Your task to perform on an android device: Show the shopping cart on ebay. Add "logitech g502" to the cart on ebay Image 0: 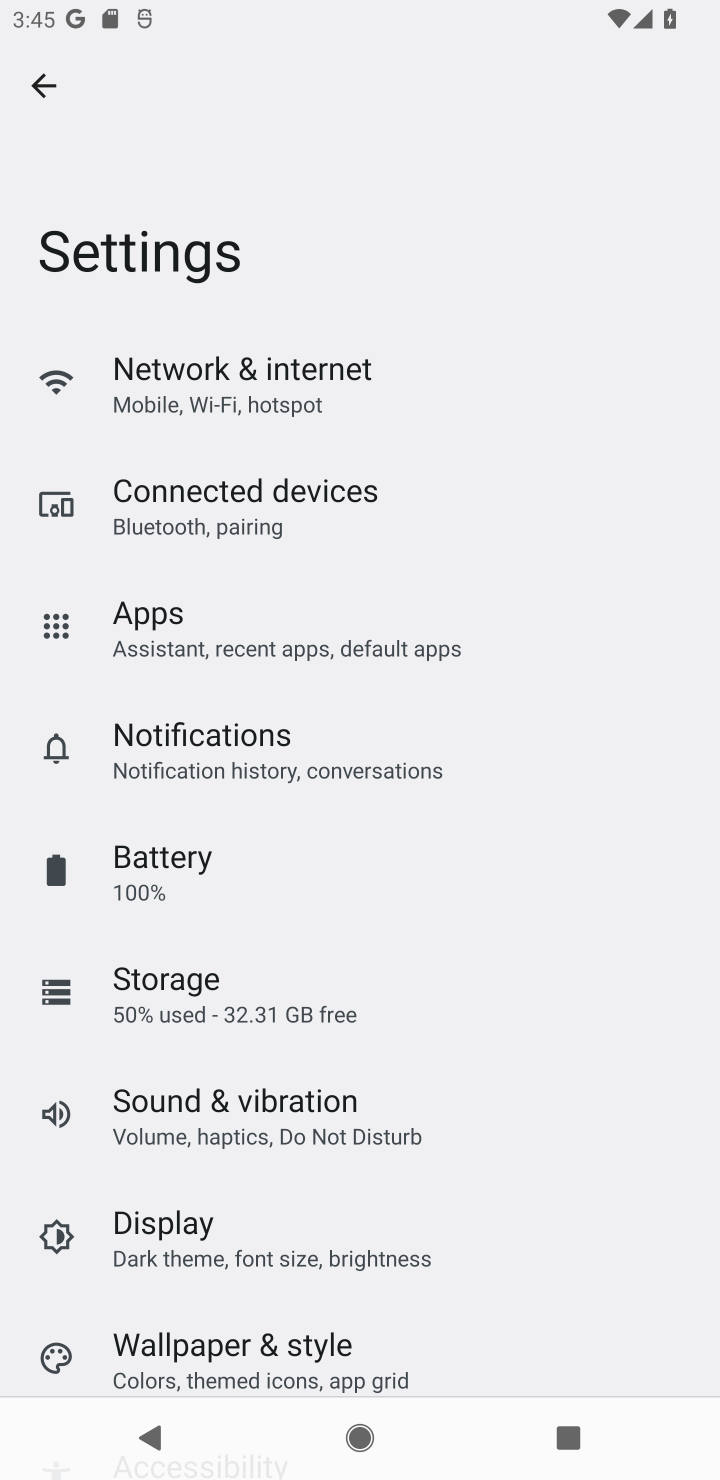
Step 0: press home button
Your task to perform on an android device: Show the shopping cart on ebay. Add "logitech g502" to the cart on ebay Image 1: 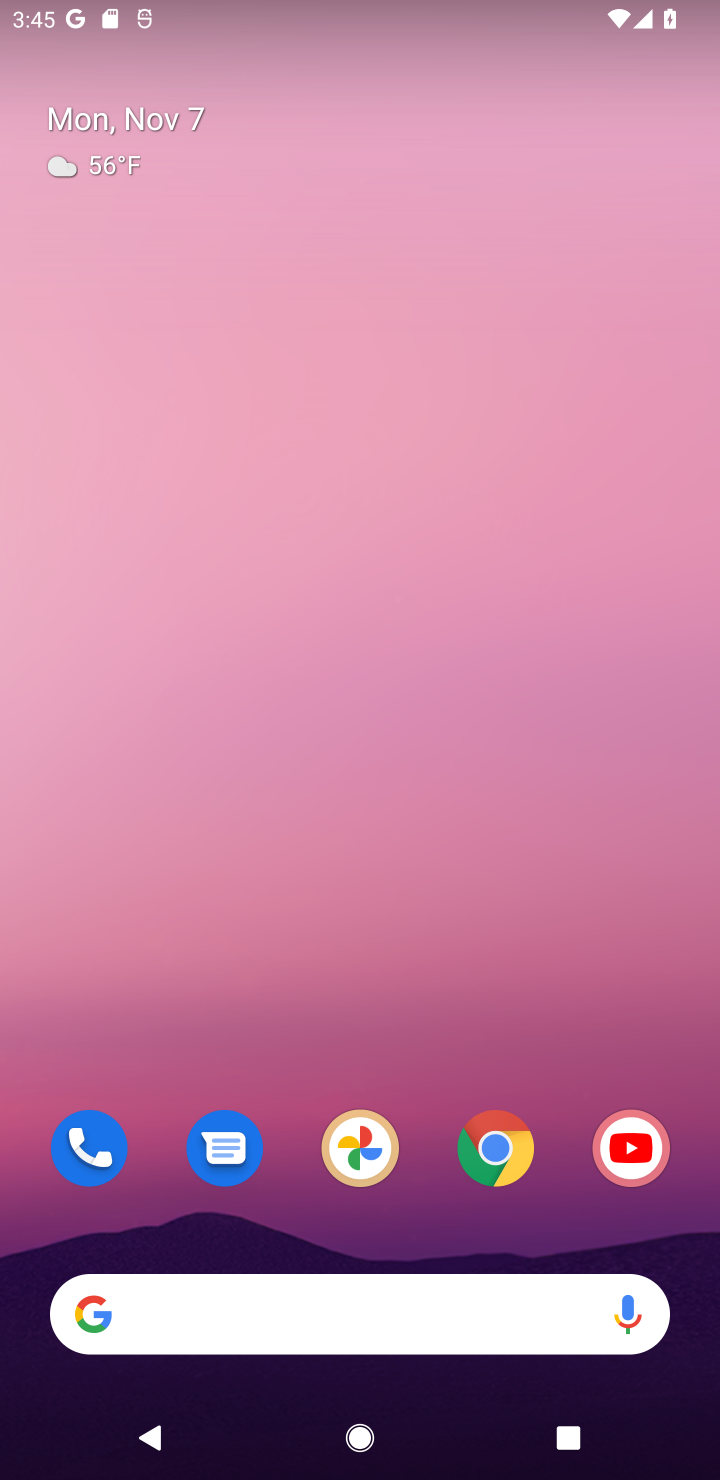
Step 1: drag from (183, 1119) to (290, 209)
Your task to perform on an android device: Show the shopping cart on ebay. Add "logitech g502" to the cart on ebay Image 2: 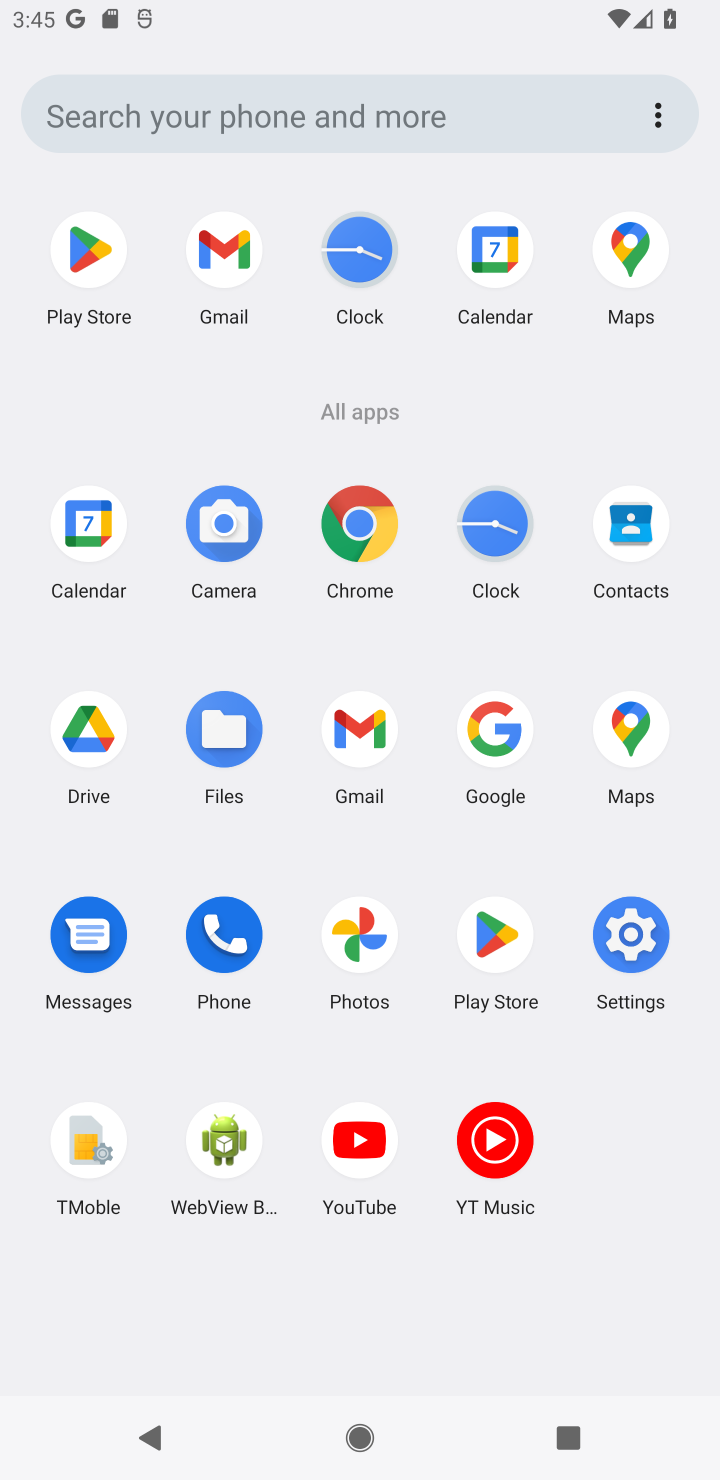
Step 2: click (357, 540)
Your task to perform on an android device: Show the shopping cart on ebay. Add "logitech g502" to the cart on ebay Image 3: 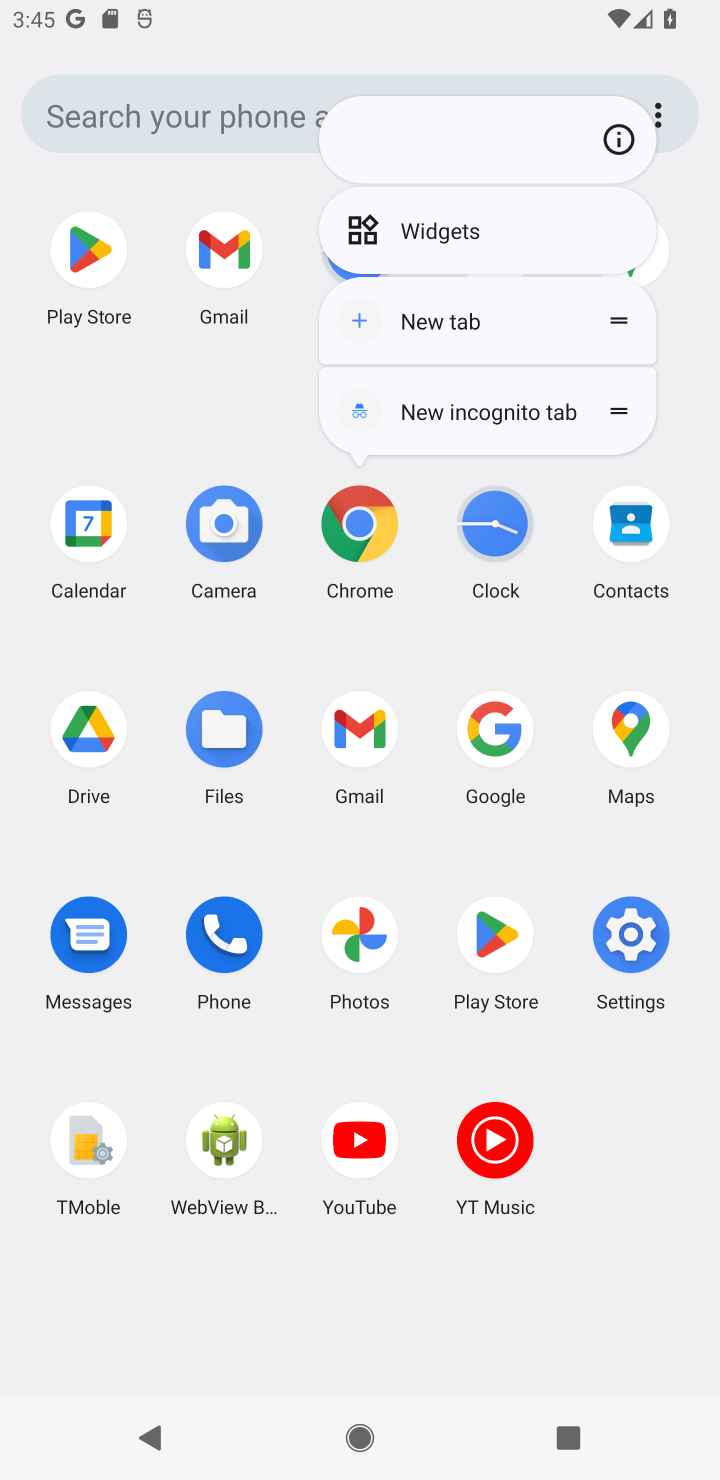
Step 3: click (357, 540)
Your task to perform on an android device: Show the shopping cart on ebay. Add "logitech g502" to the cart on ebay Image 4: 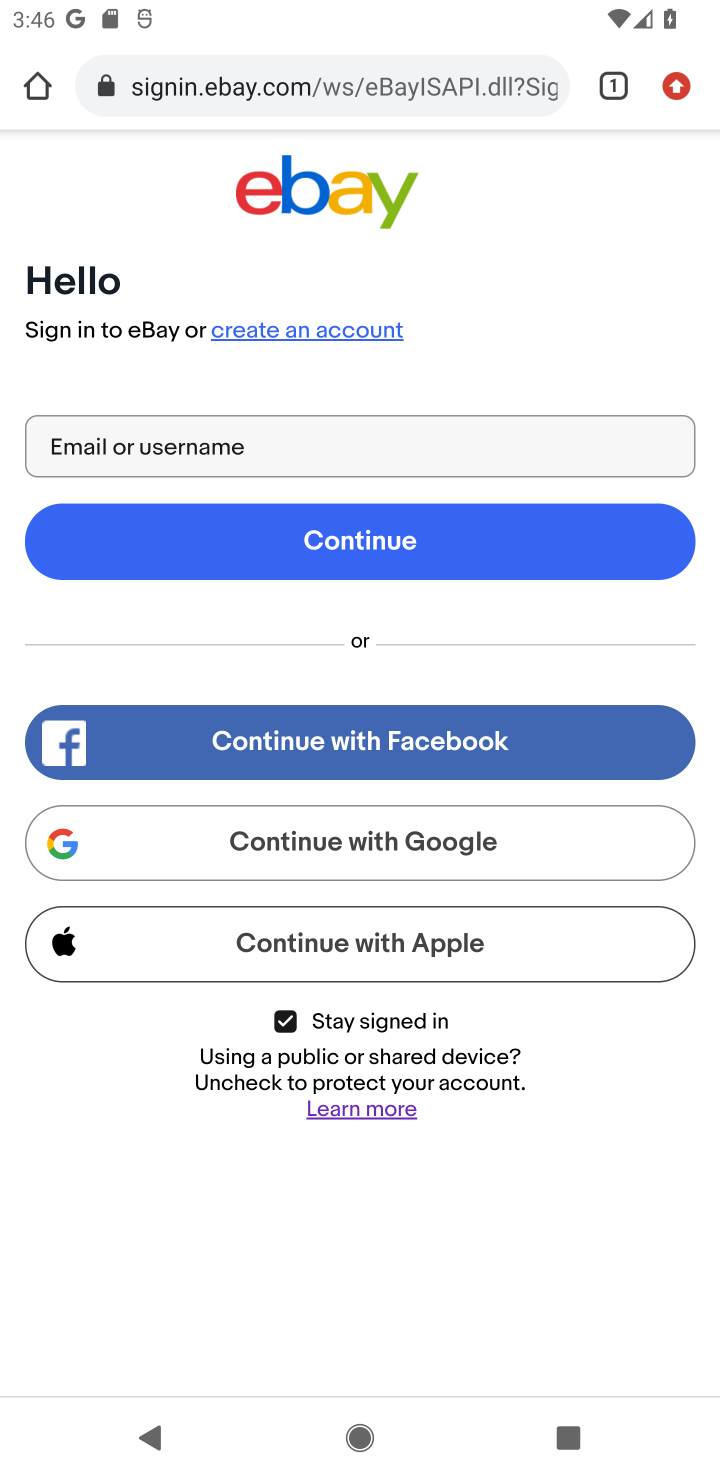
Step 4: click (357, 180)
Your task to perform on an android device: Show the shopping cart on ebay. Add "logitech g502" to the cart on ebay Image 5: 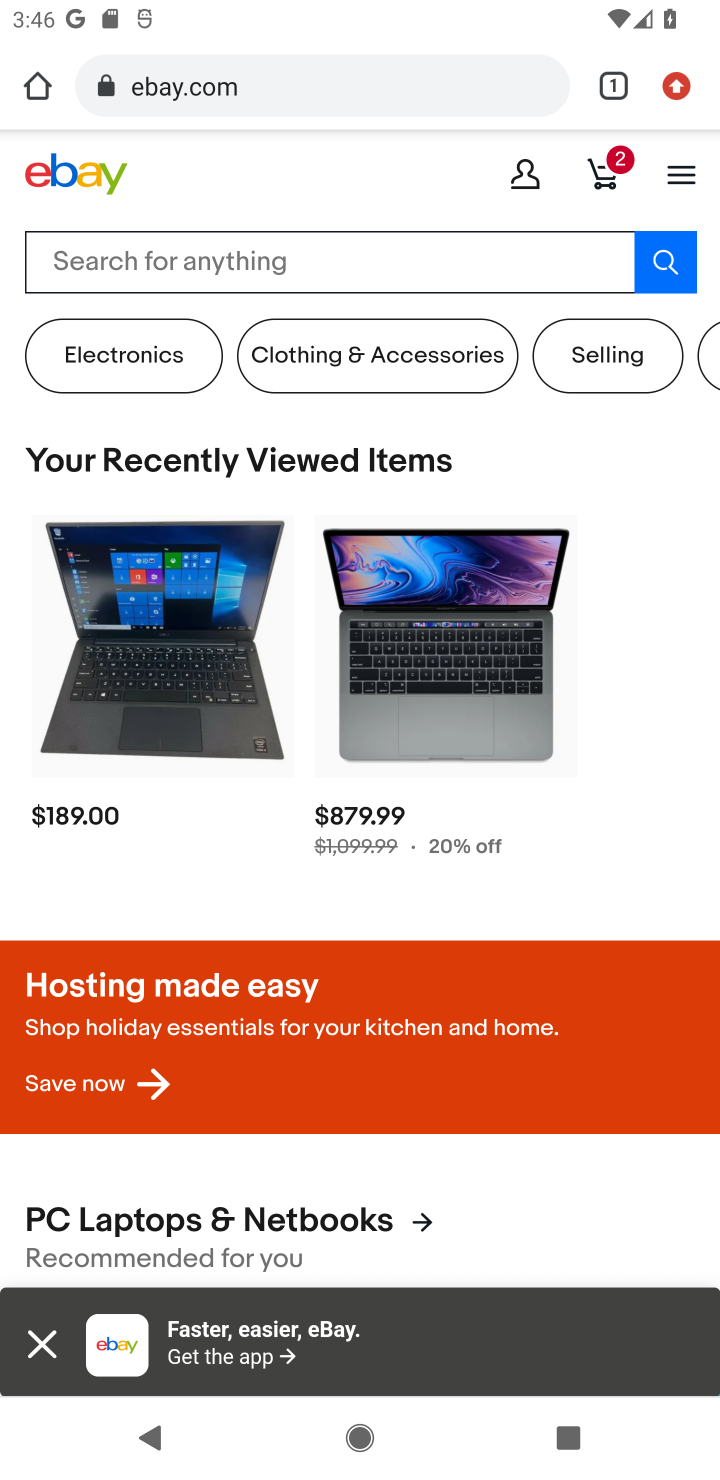
Step 5: click (604, 173)
Your task to perform on an android device: Show the shopping cart on ebay. Add "logitech g502" to the cart on ebay Image 6: 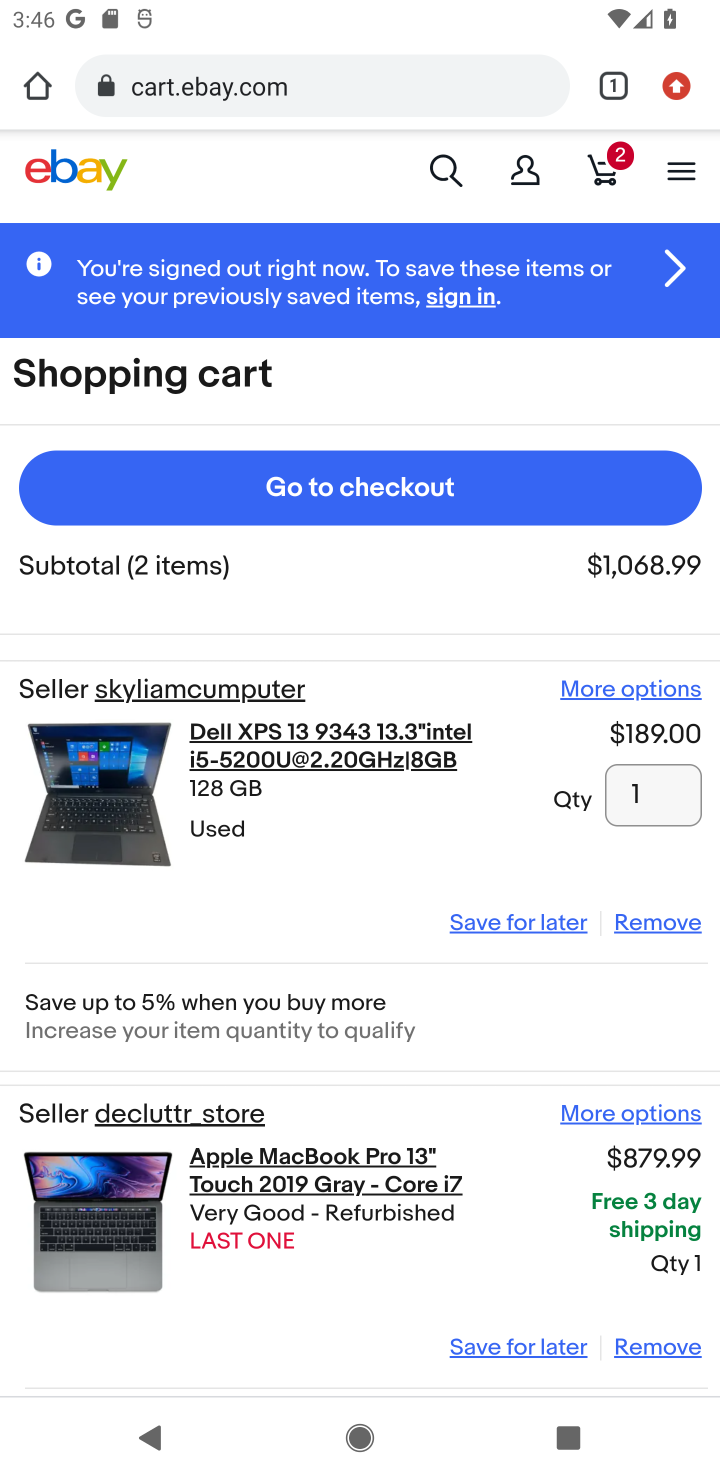
Step 6: click (463, 171)
Your task to perform on an android device: Show the shopping cart on ebay. Add "logitech g502" to the cart on ebay Image 7: 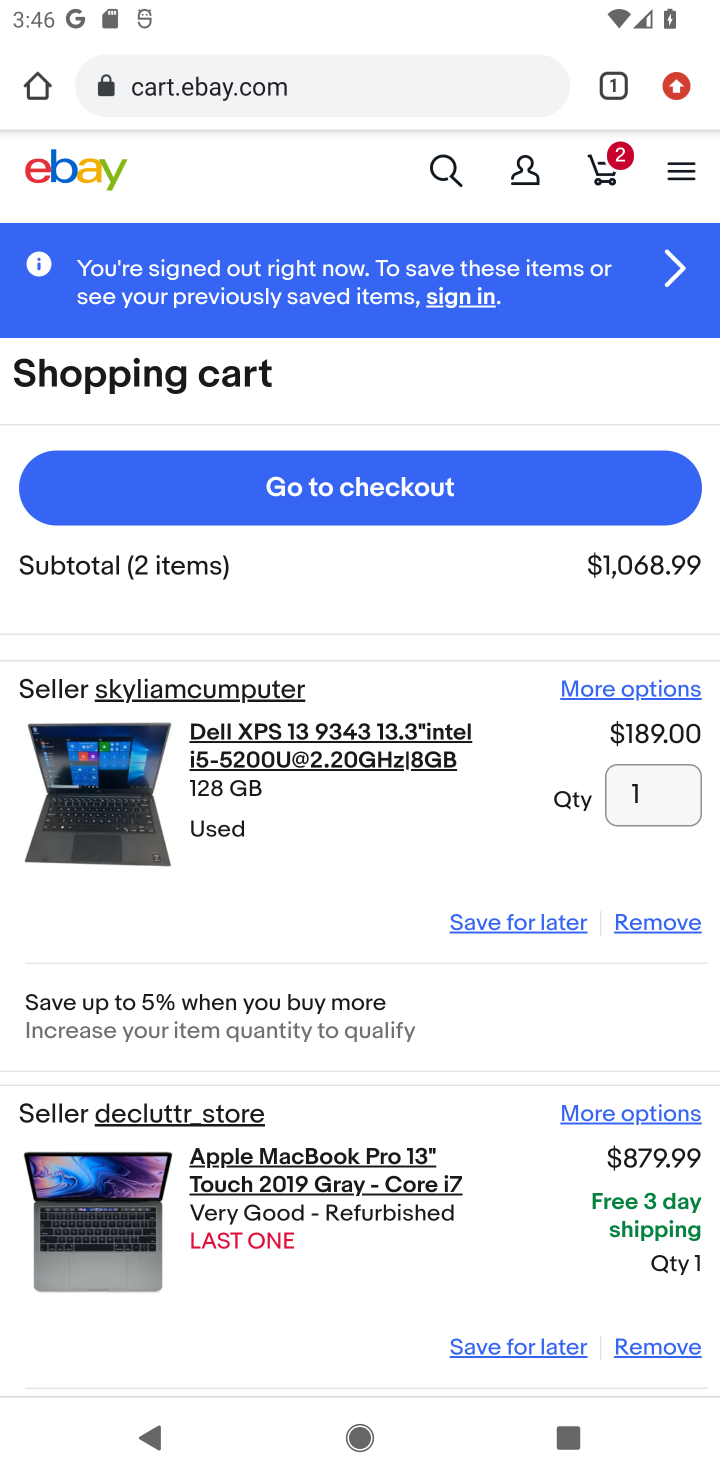
Step 7: click (452, 175)
Your task to perform on an android device: Show the shopping cart on ebay. Add "logitech g502" to the cart on ebay Image 8: 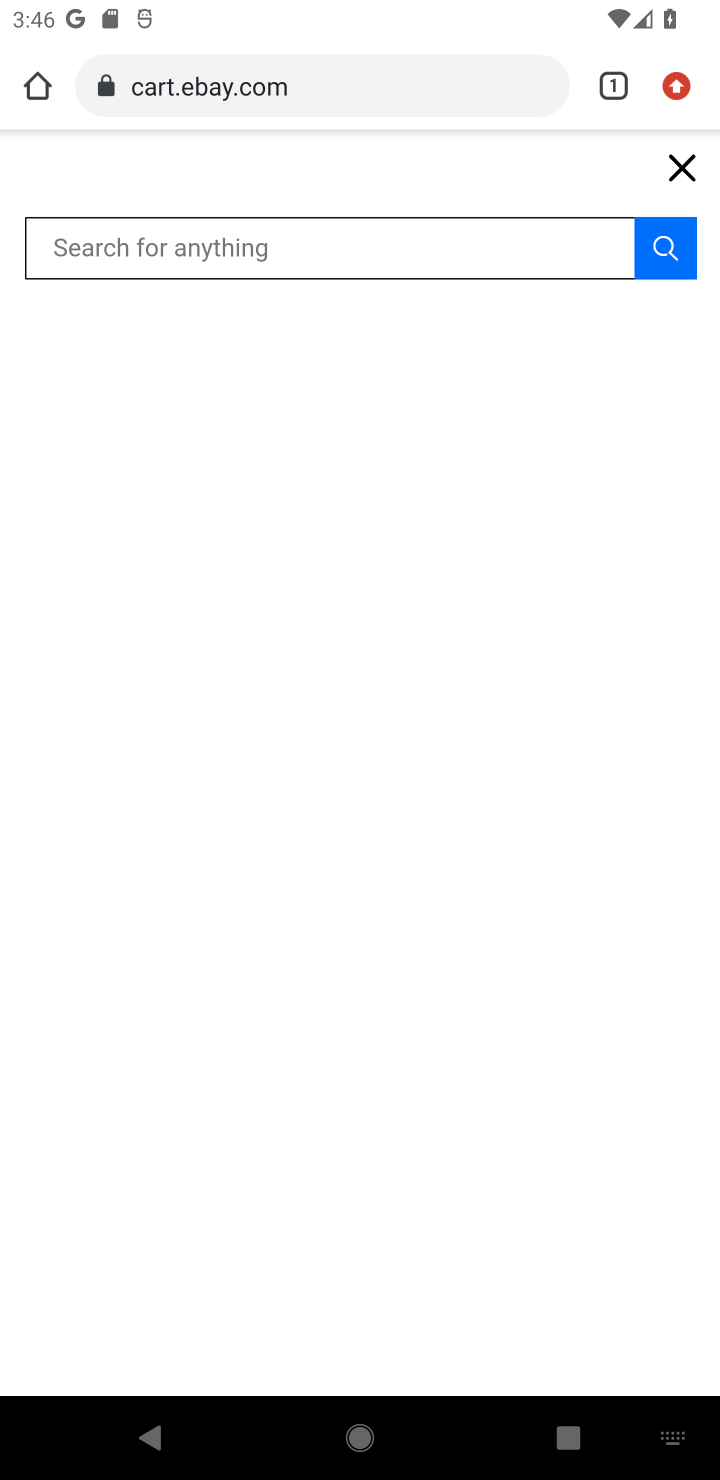
Step 8: type "logitech g502"
Your task to perform on an android device: Show the shopping cart on ebay. Add "logitech g502" to the cart on ebay Image 9: 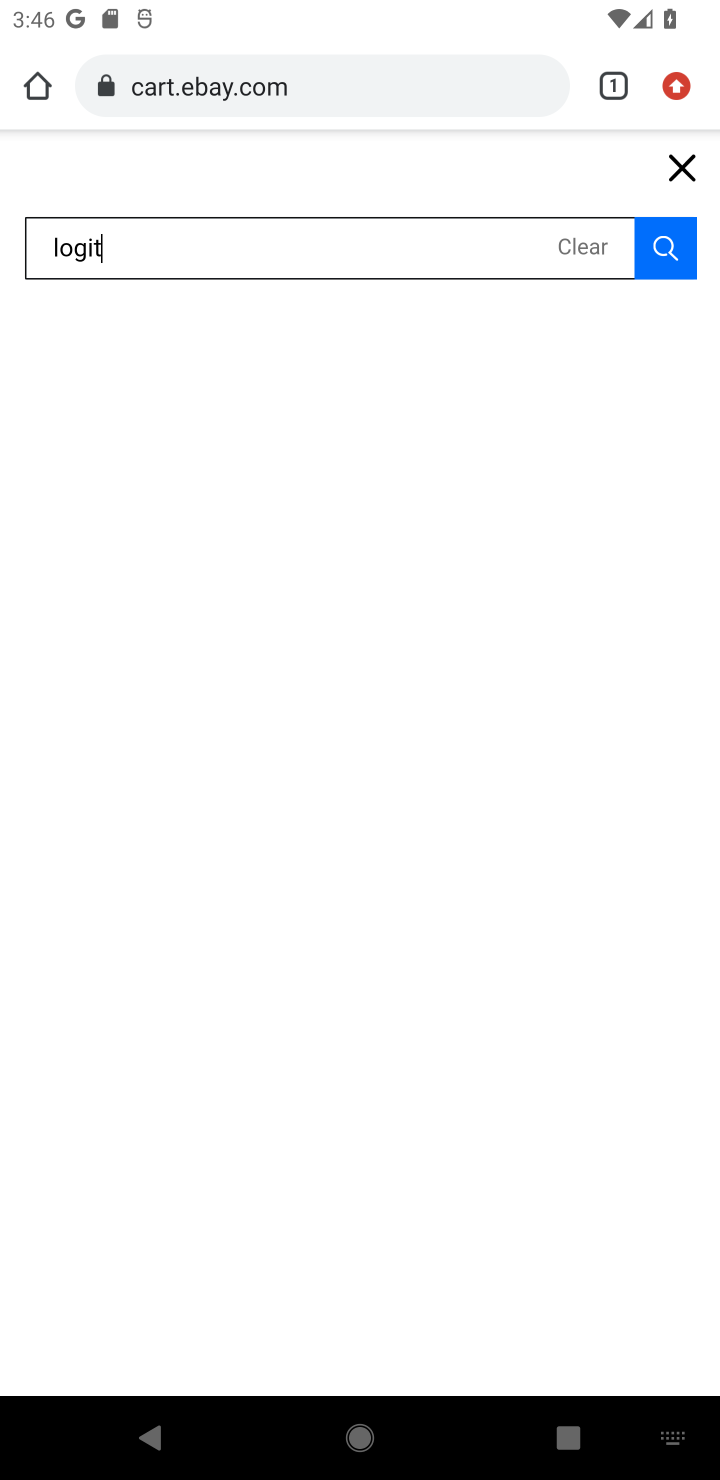
Step 9: press enter
Your task to perform on an android device: Show the shopping cart on ebay. Add "logitech g502" to the cart on ebay Image 10: 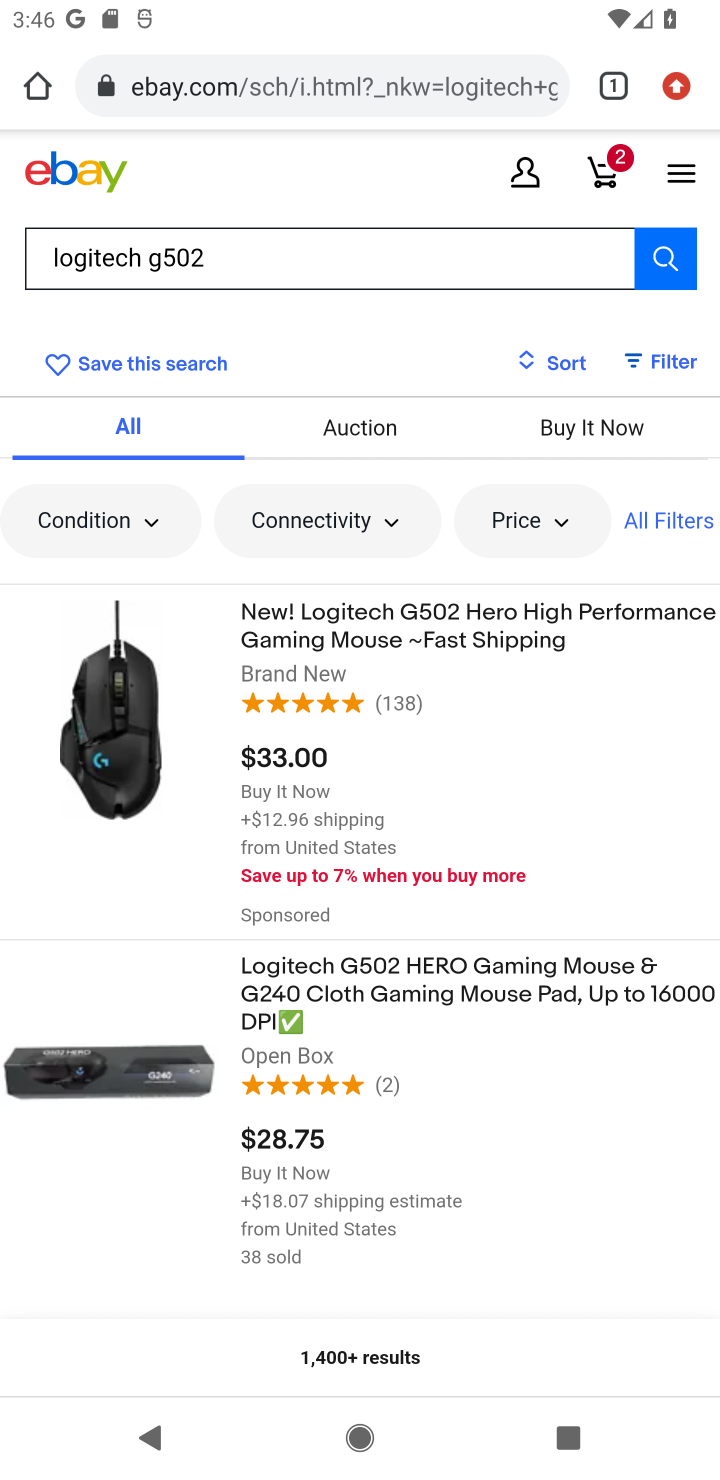
Step 10: click (118, 756)
Your task to perform on an android device: Show the shopping cart on ebay. Add "logitech g502" to the cart on ebay Image 11: 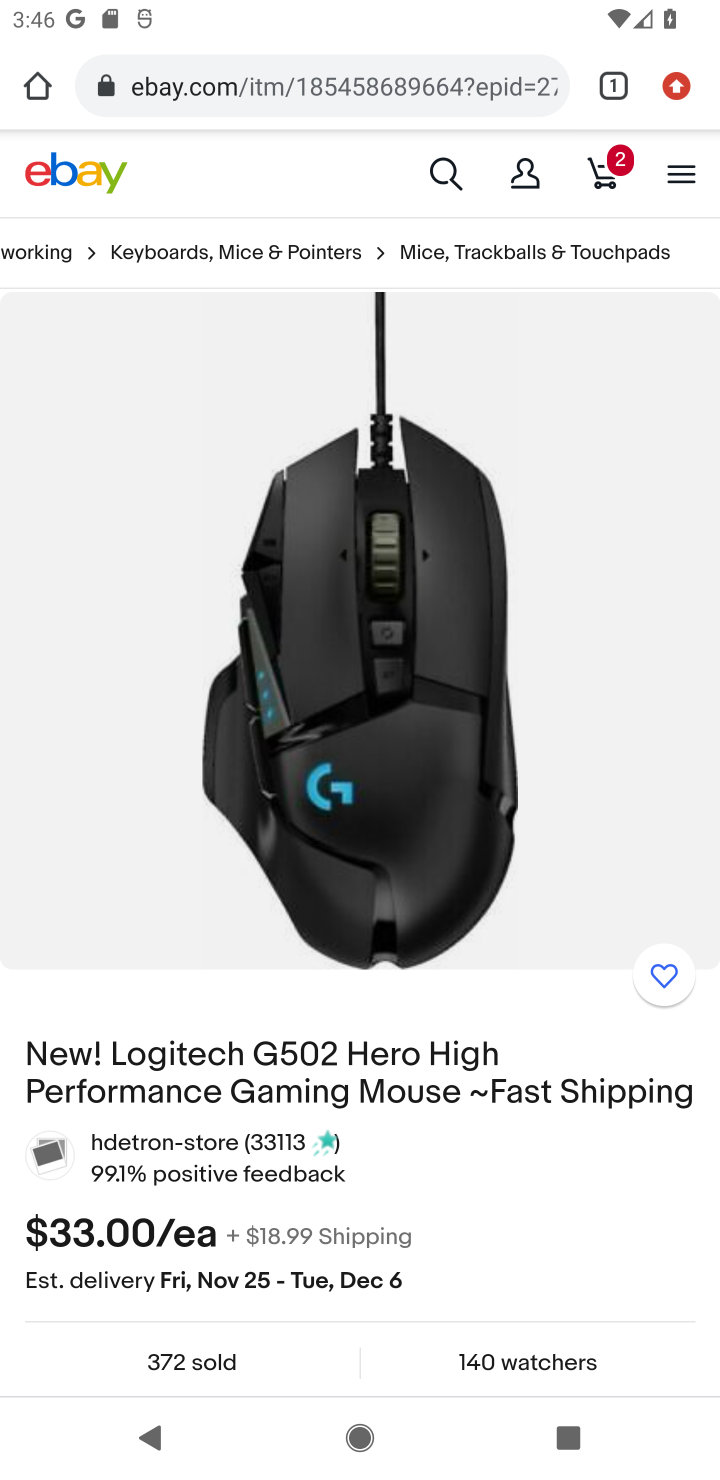
Step 11: drag from (388, 1182) to (502, 495)
Your task to perform on an android device: Show the shopping cart on ebay. Add "logitech g502" to the cart on ebay Image 12: 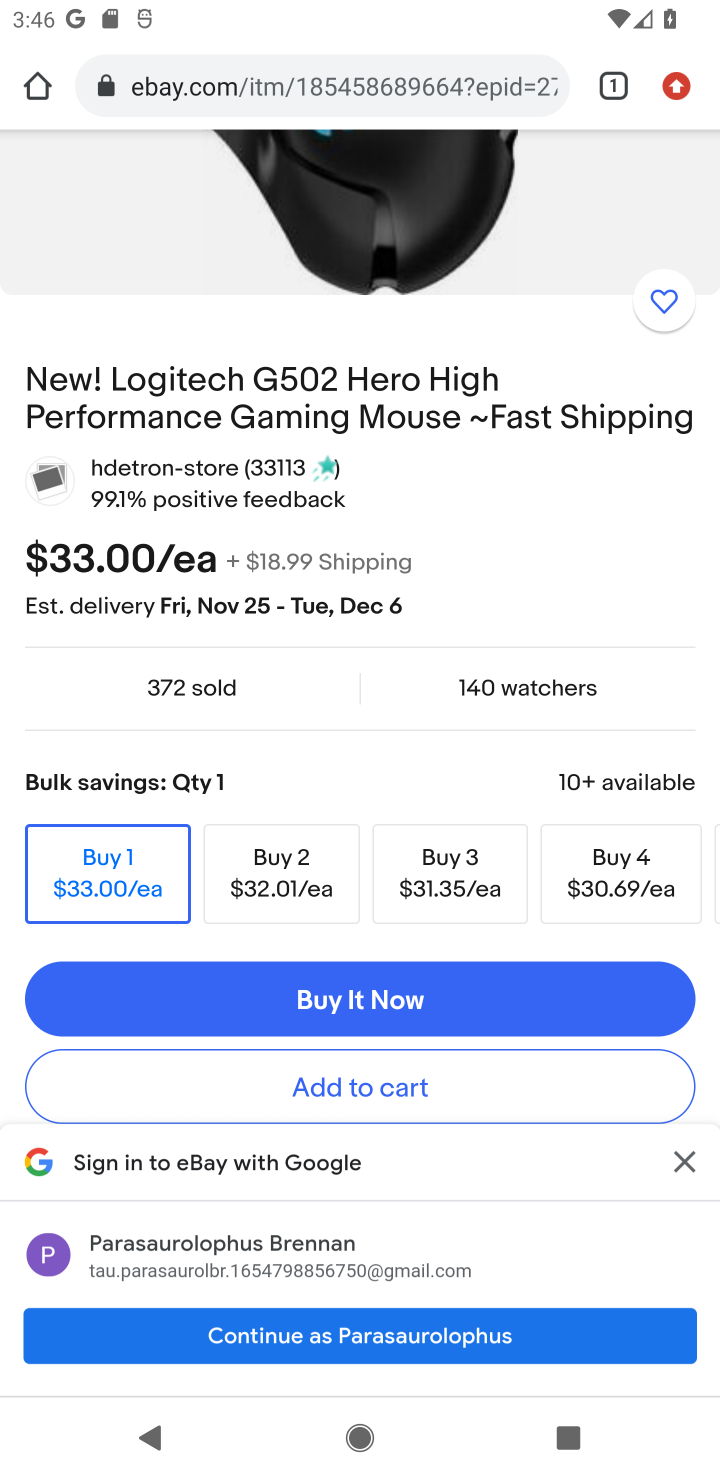
Step 12: click (394, 1091)
Your task to perform on an android device: Show the shopping cart on ebay. Add "logitech g502" to the cart on ebay Image 13: 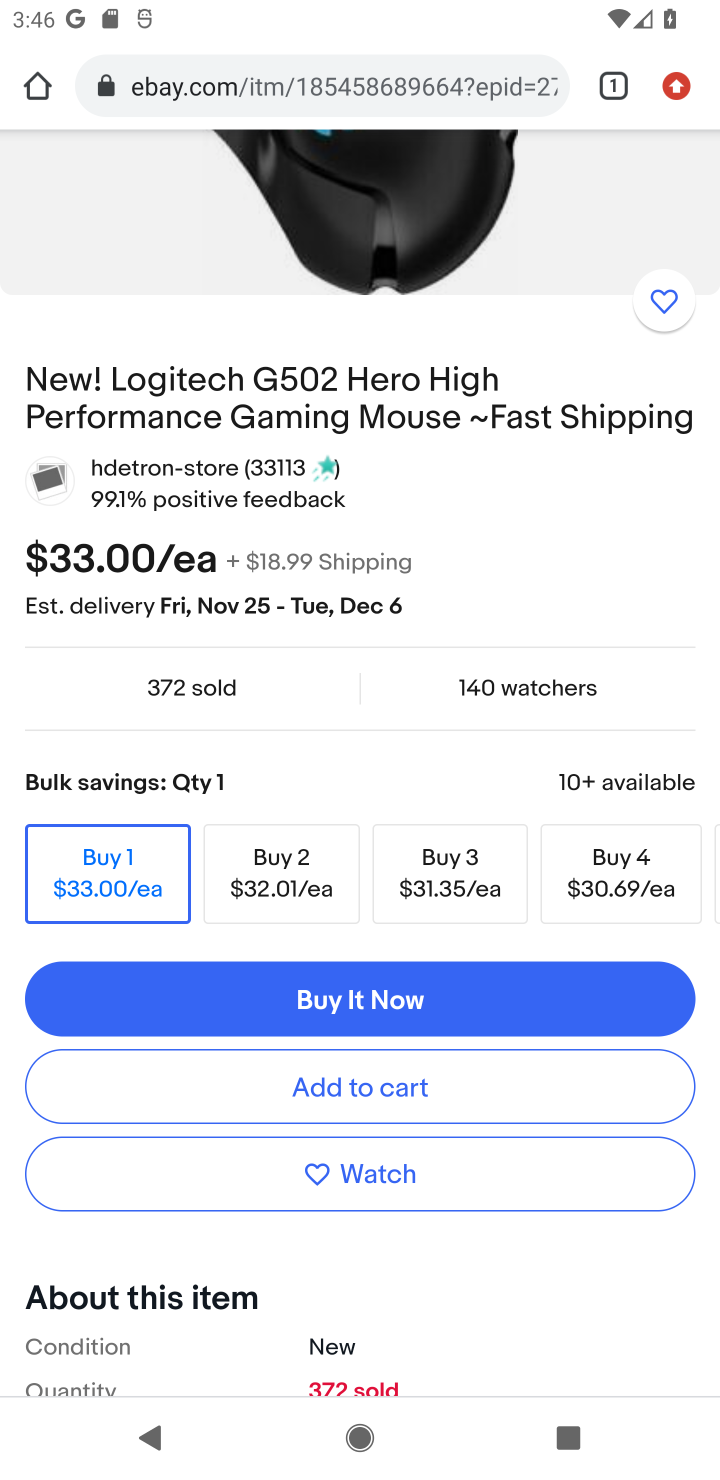
Step 13: click (394, 1089)
Your task to perform on an android device: Show the shopping cart on ebay. Add "logitech g502" to the cart on ebay Image 14: 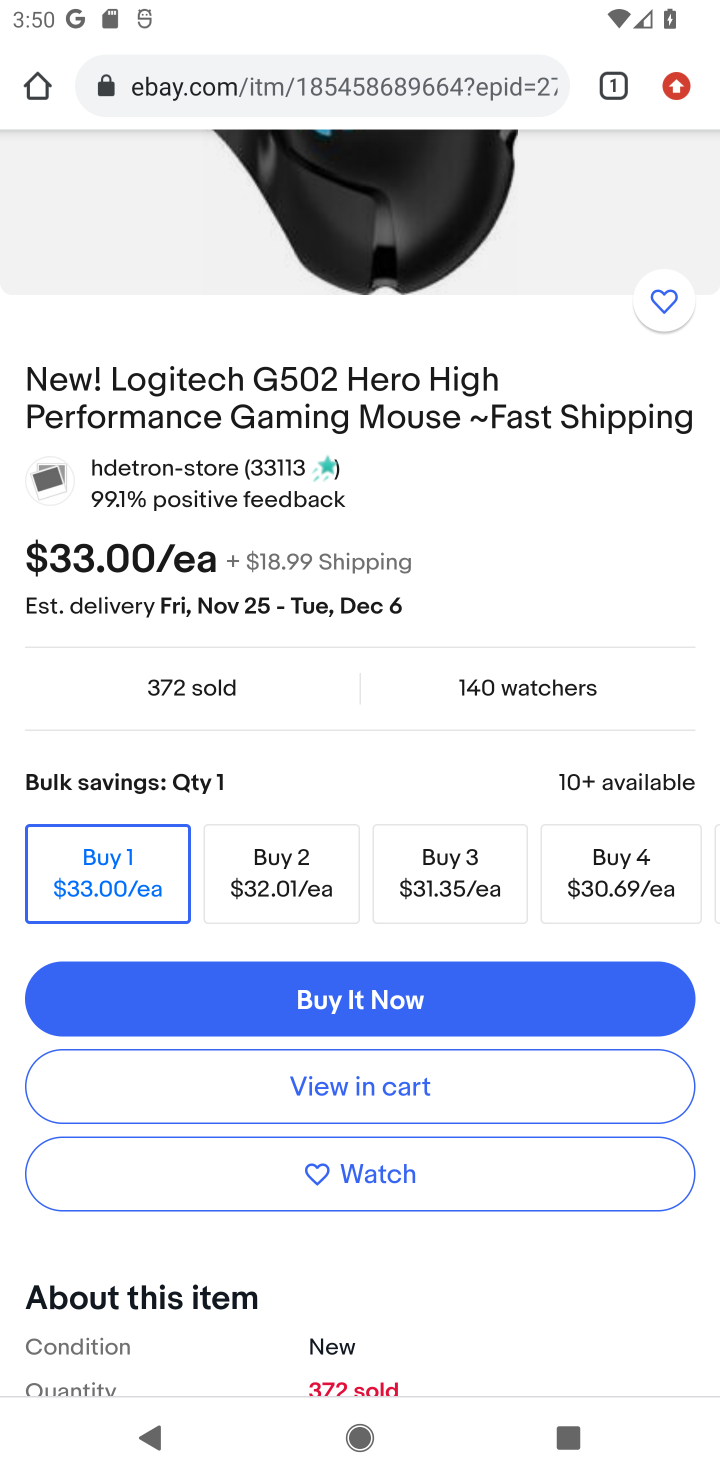
Step 14: task complete